Your task to perform on an android device: open app "Lyft - Rideshare, Bikes, Scooters & Transit" (install if not already installed) Image 0: 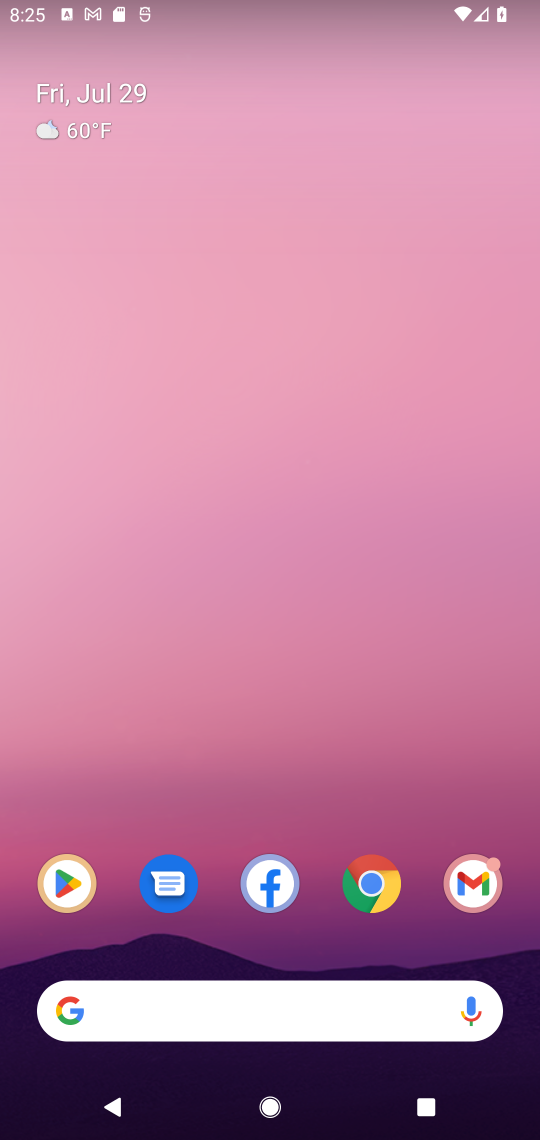
Step 0: click (57, 887)
Your task to perform on an android device: open app "Lyft - Rideshare, Bikes, Scooters & Transit" (install if not already installed) Image 1: 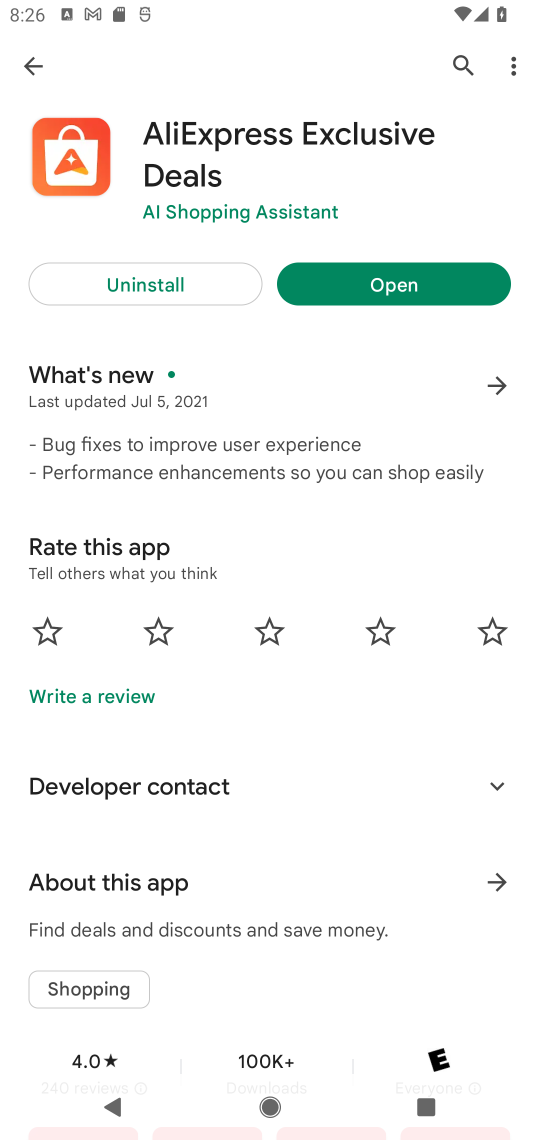
Step 1: click (450, 61)
Your task to perform on an android device: open app "Lyft - Rideshare, Bikes, Scooters & Transit" (install if not already installed) Image 2: 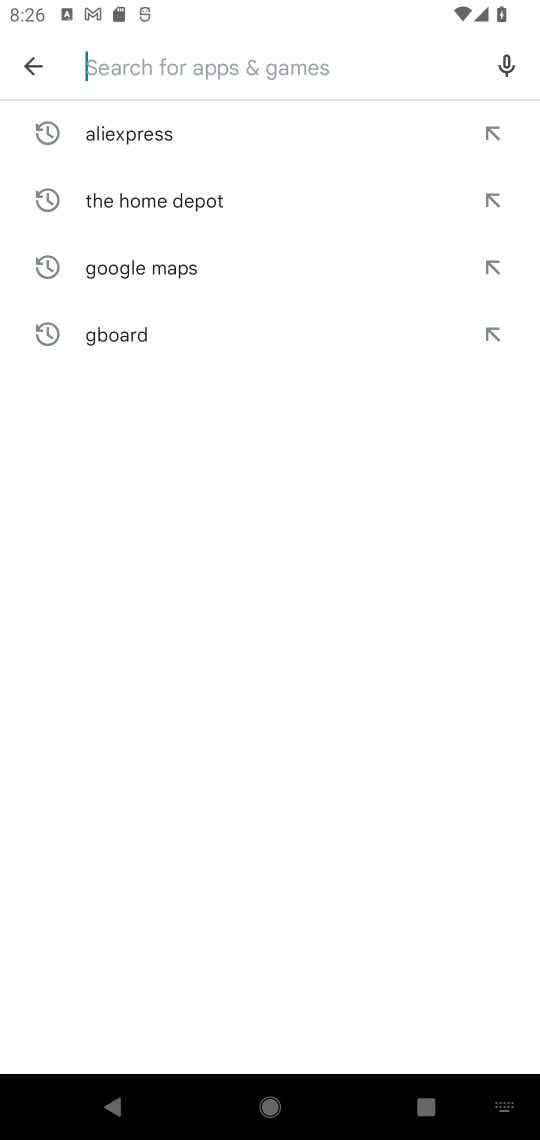
Step 2: click (261, 71)
Your task to perform on an android device: open app "Lyft - Rideshare, Bikes, Scooters & Transit" (install if not already installed) Image 3: 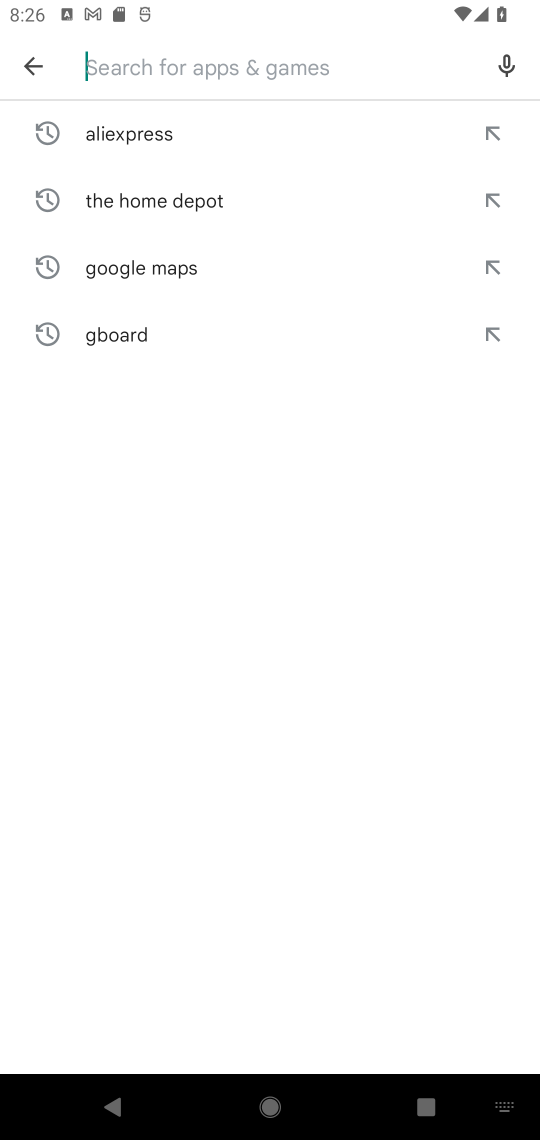
Step 3: type "lyft"
Your task to perform on an android device: open app "Lyft - Rideshare, Bikes, Scooters & Transit" (install if not already installed) Image 4: 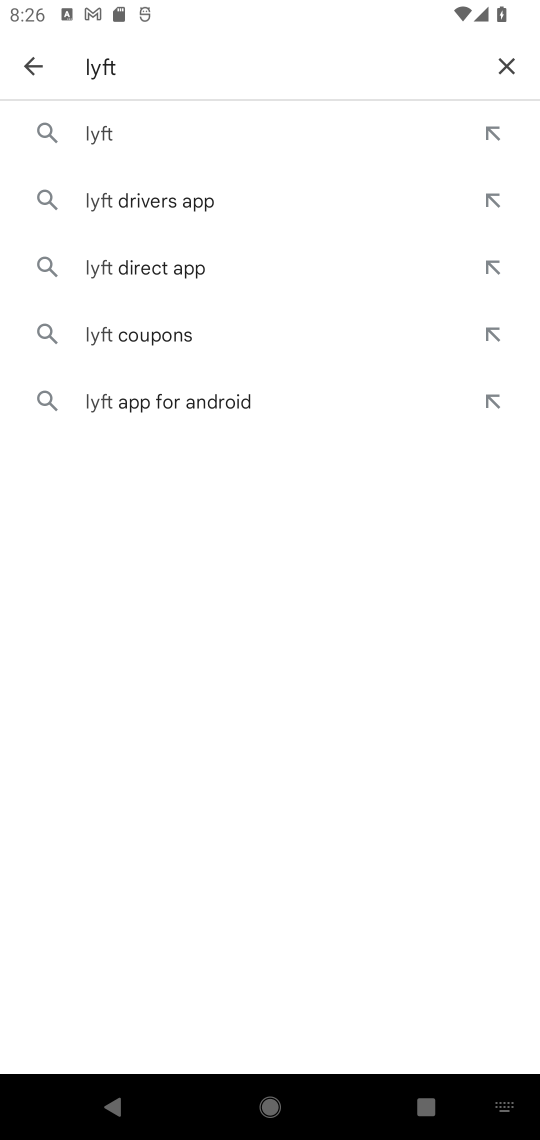
Step 4: click (105, 119)
Your task to perform on an android device: open app "Lyft - Rideshare, Bikes, Scooters & Transit" (install if not already installed) Image 5: 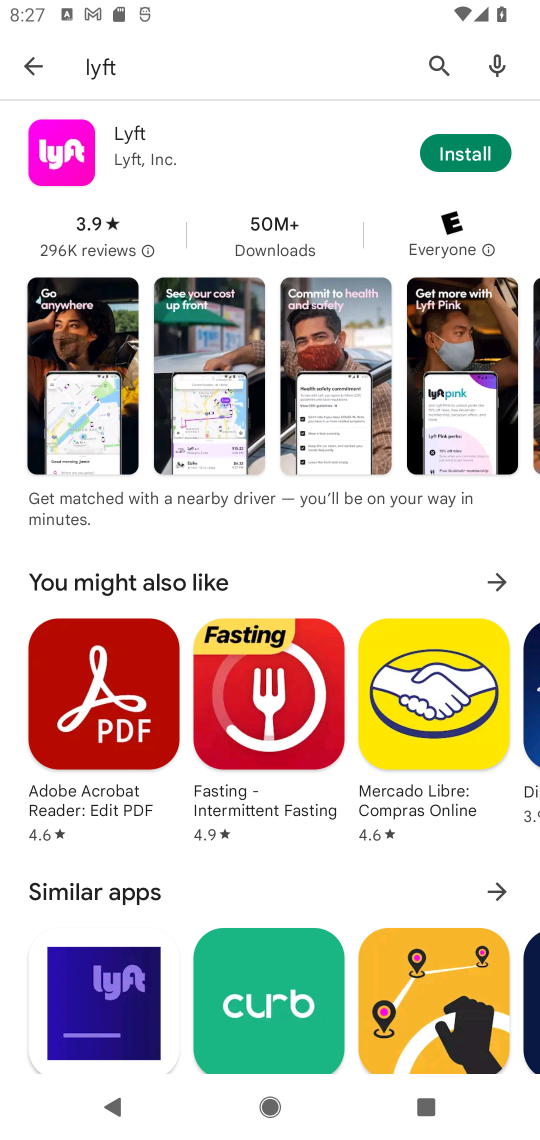
Step 5: click (476, 148)
Your task to perform on an android device: open app "Lyft - Rideshare, Bikes, Scooters & Transit" (install if not already installed) Image 6: 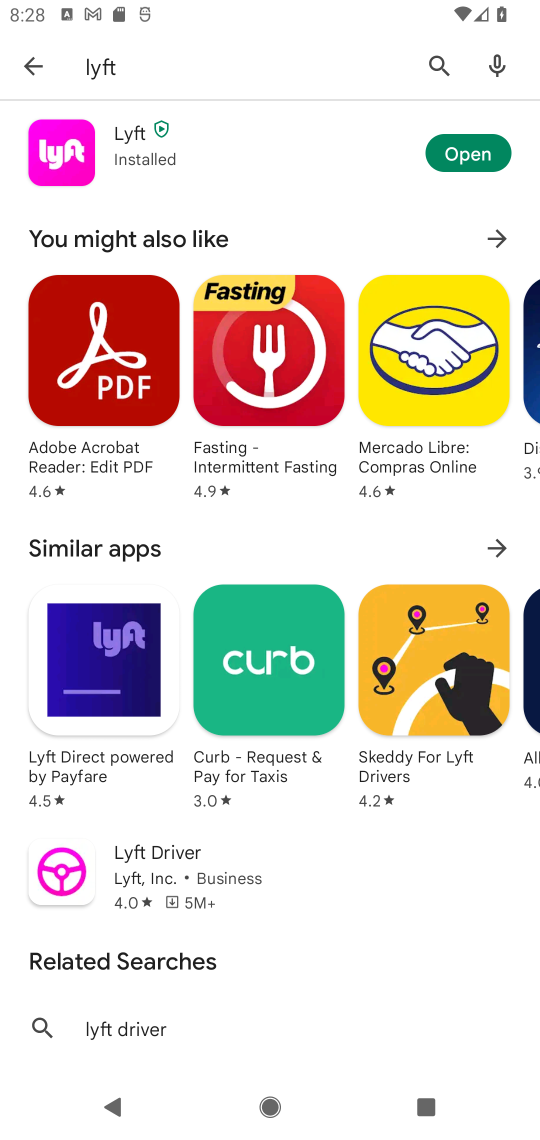
Step 6: click (472, 165)
Your task to perform on an android device: open app "Lyft - Rideshare, Bikes, Scooters & Transit" (install if not already installed) Image 7: 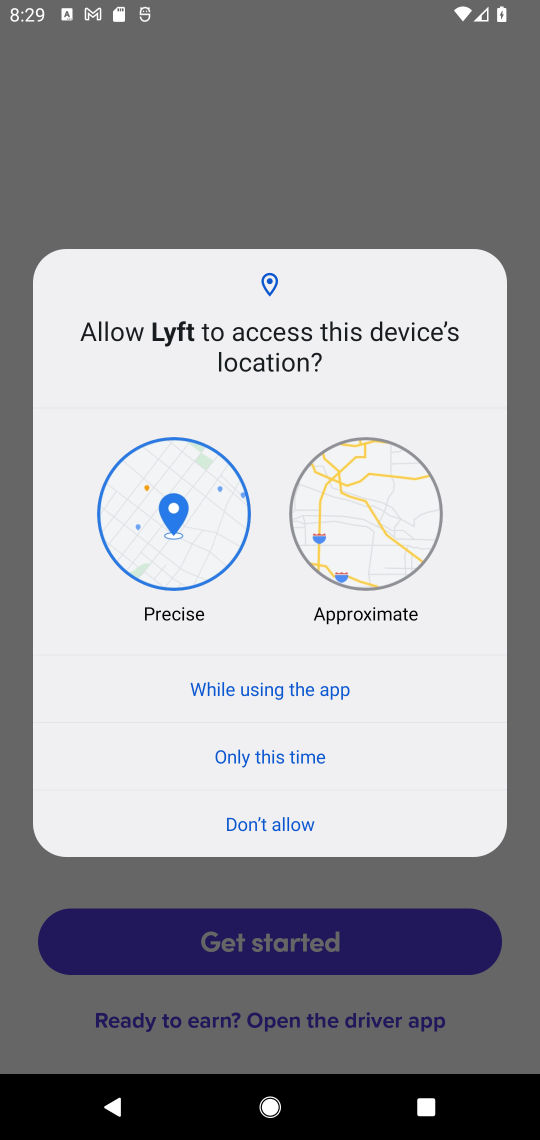
Step 7: task complete